Your task to perform on an android device: What's the news in Uruguay? Image 0: 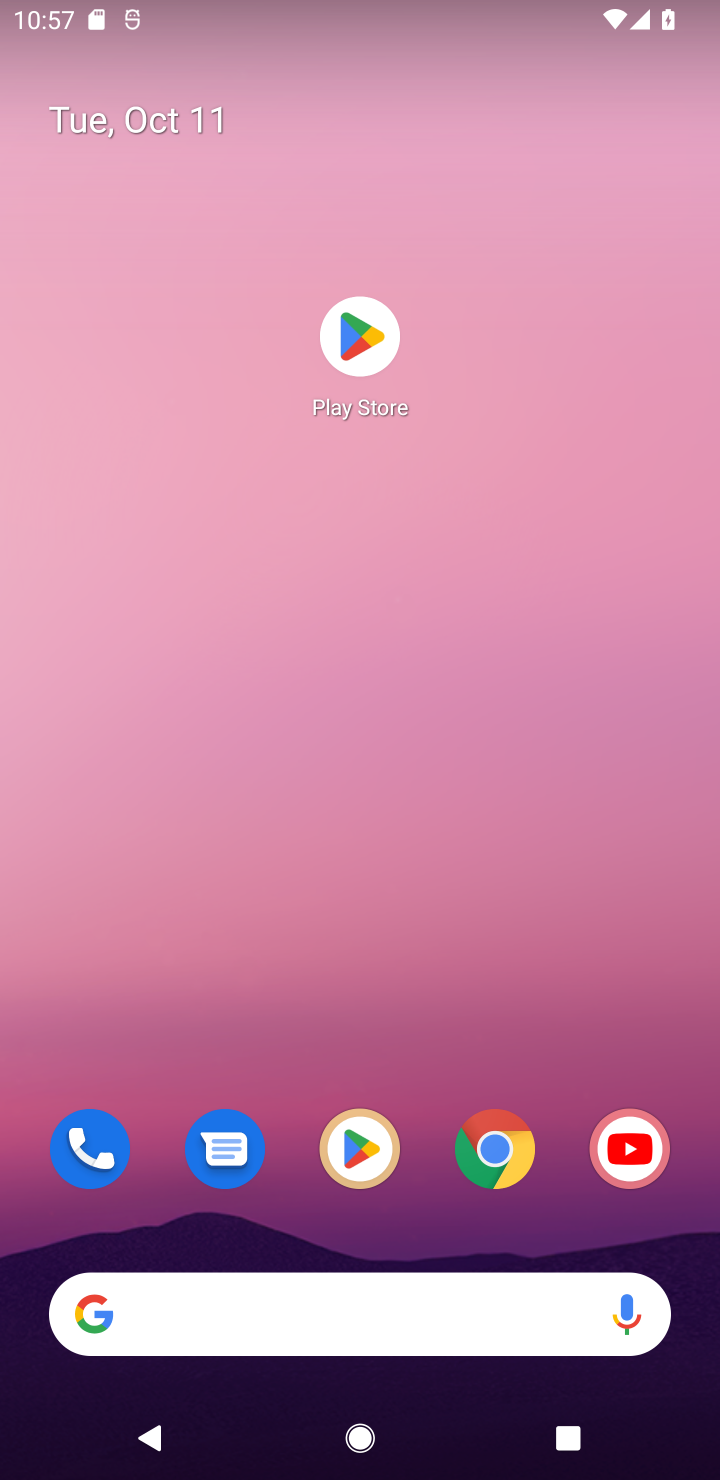
Step 0: click (339, 1316)
Your task to perform on an android device: What's the news in Uruguay? Image 1: 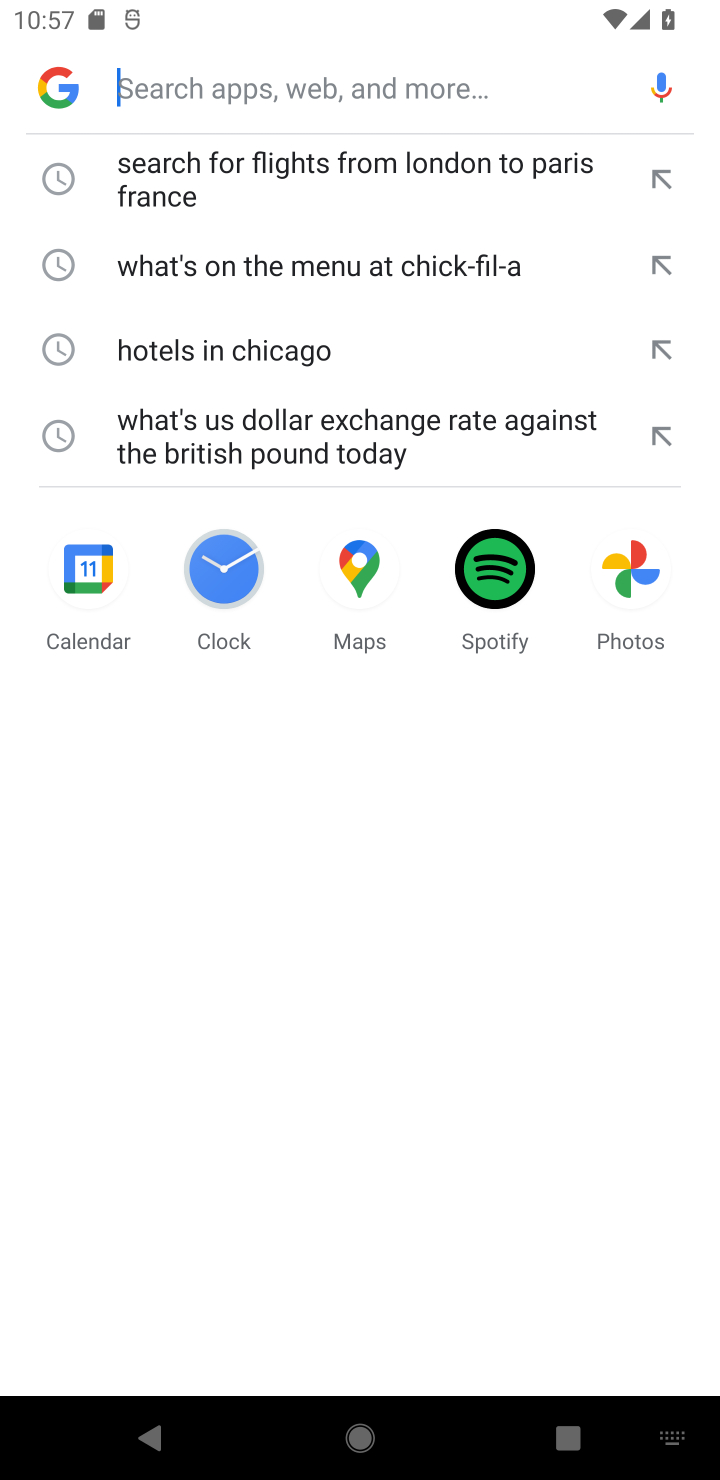
Step 1: type "What's the news in Uruguay?"
Your task to perform on an android device: What's the news in Uruguay? Image 2: 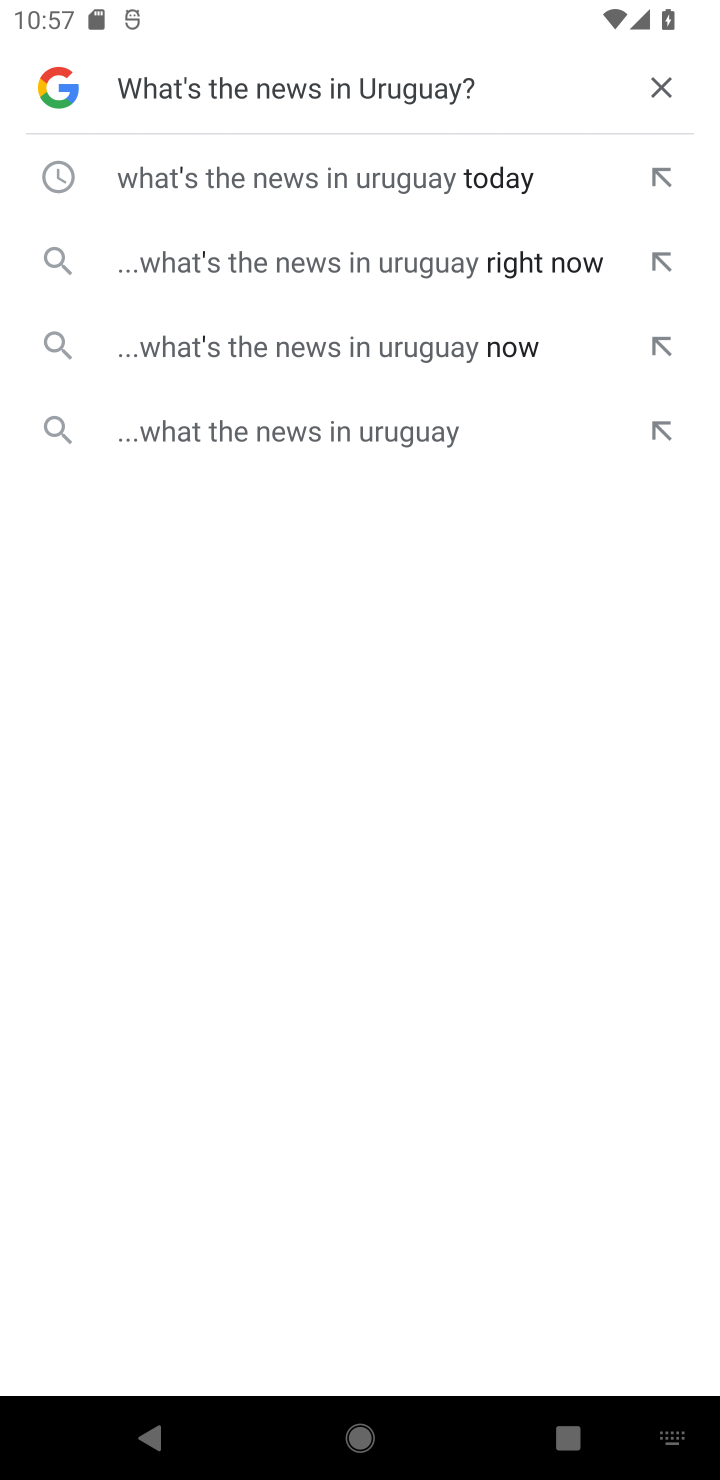
Step 2: click (386, 350)
Your task to perform on an android device: What's the news in Uruguay? Image 3: 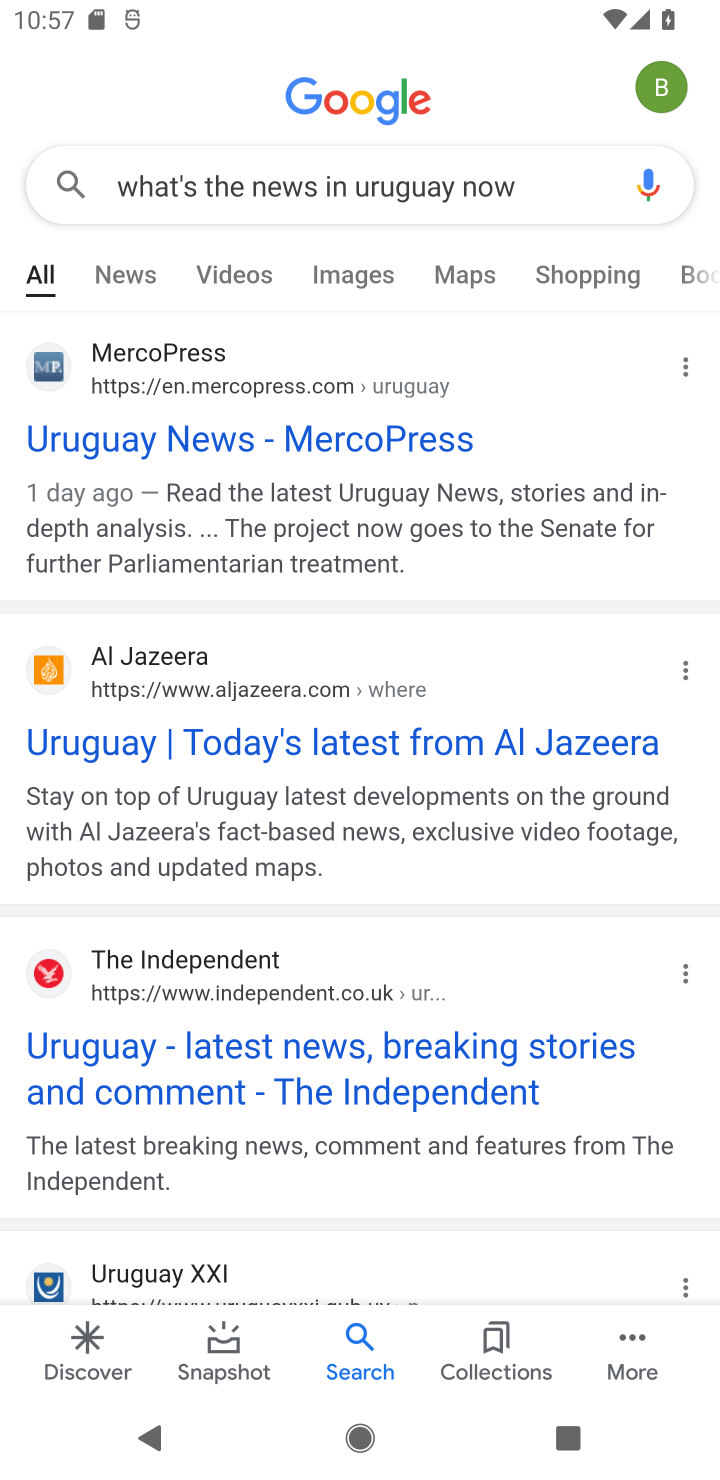
Step 3: task complete